Your task to perform on an android device: check storage Image 0: 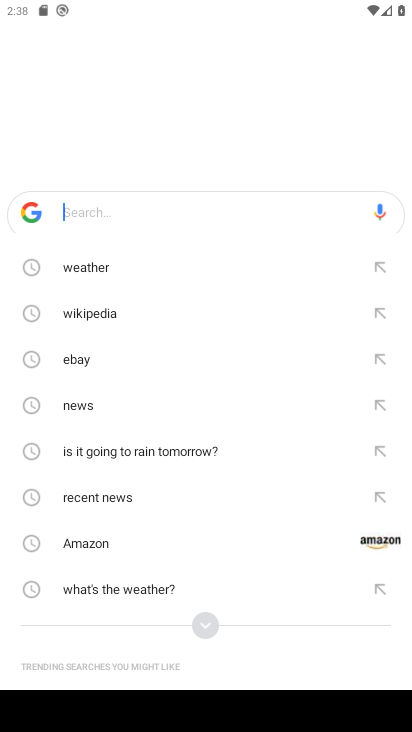
Step 0: press home button
Your task to perform on an android device: check storage Image 1: 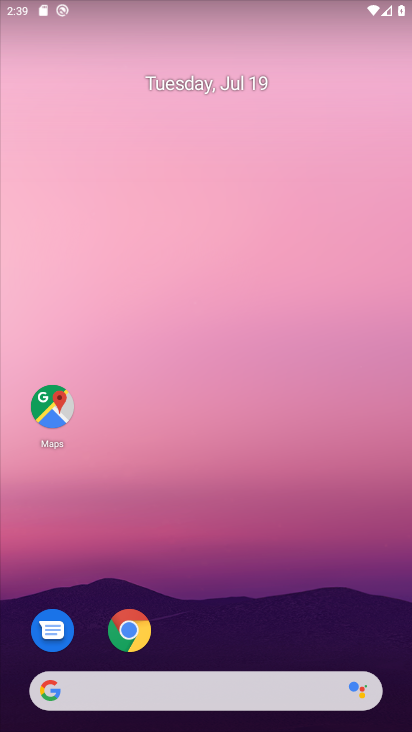
Step 1: drag from (200, 504) to (131, 43)
Your task to perform on an android device: check storage Image 2: 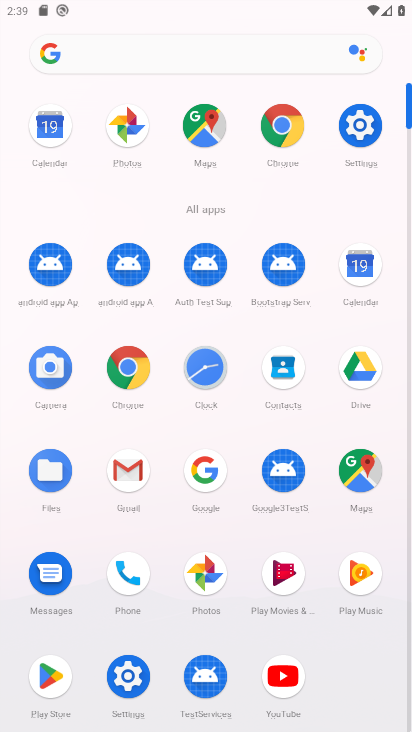
Step 2: click (368, 120)
Your task to perform on an android device: check storage Image 3: 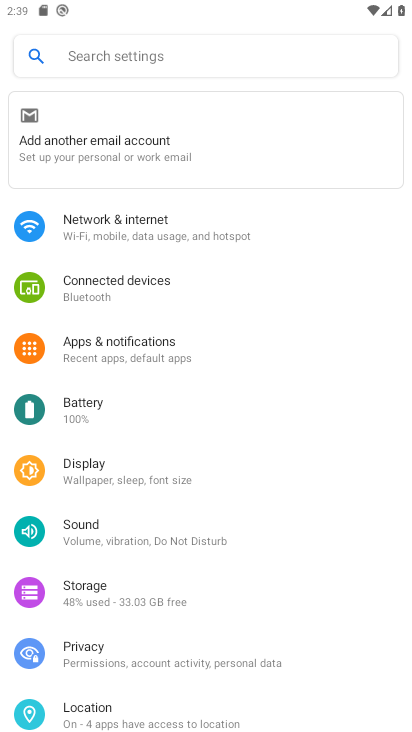
Step 3: click (84, 587)
Your task to perform on an android device: check storage Image 4: 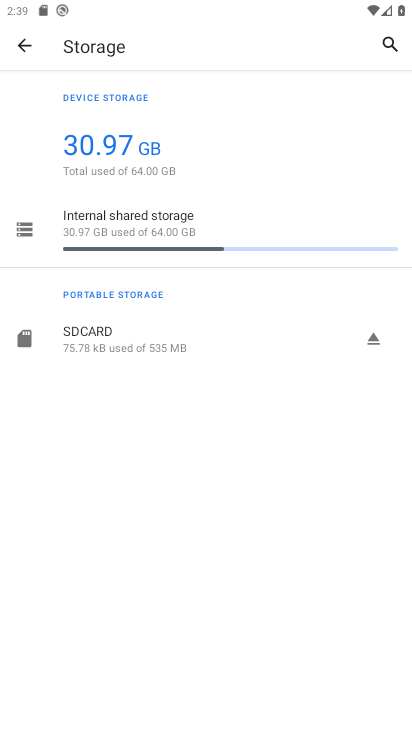
Step 4: task complete